Your task to perform on an android device: Go to location settings Image 0: 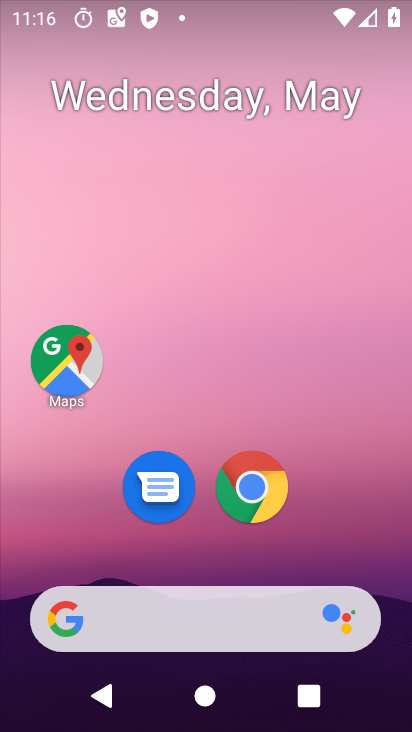
Step 0: drag from (278, 538) to (282, 164)
Your task to perform on an android device: Go to location settings Image 1: 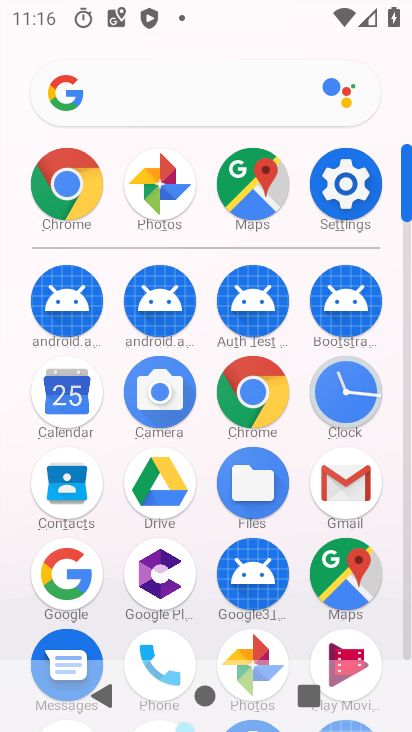
Step 1: click (336, 185)
Your task to perform on an android device: Go to location settings Image 2: 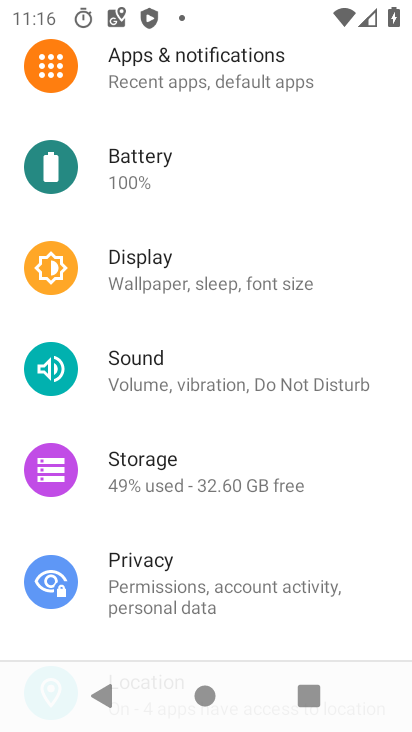
Step 2: drag from (141, 312) to (163, 719)
Your task to perform on an android device: Go to location settings Image 3: 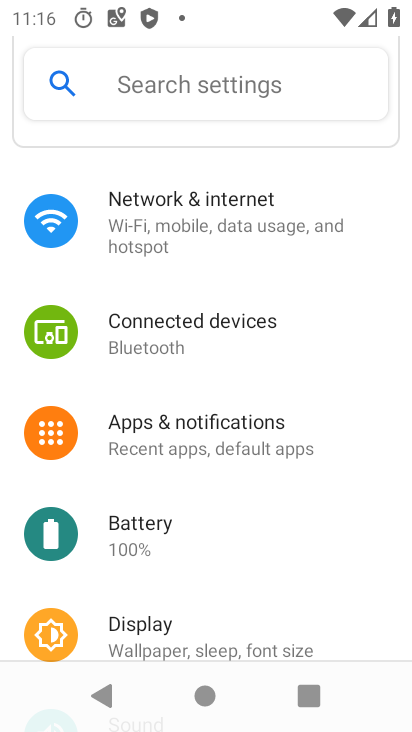
Step 3: drag from (167, 589) to (155, 150)
Your task to perform on an android device: Go to location settings Image 4: 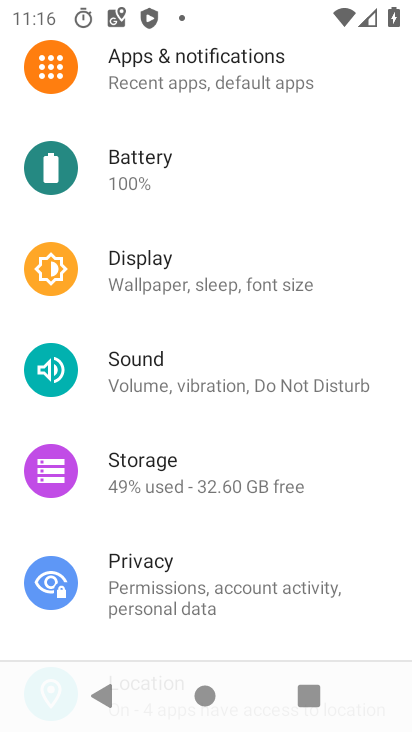
Step 4: drag from (100, 642) to (132, 406)
Your task to perform on an android device: Go to location settings Image 5: 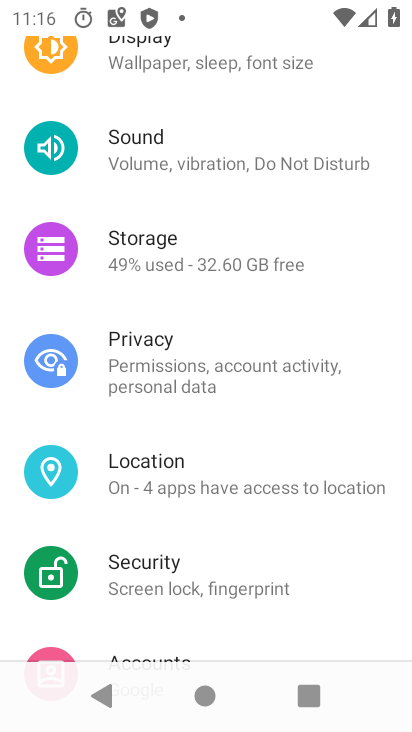
Step 5: click (177, 491)
Your task to perform on an android device: Go to location settings Image 6: 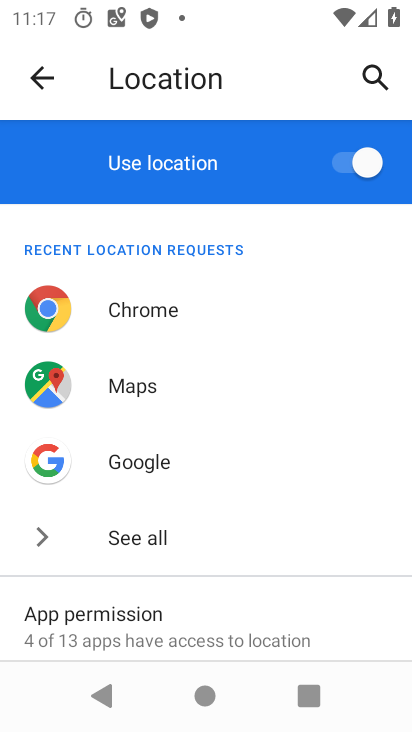
Step 6: task complete